Your task to perform on an android device: Go to notification settings Image 0: 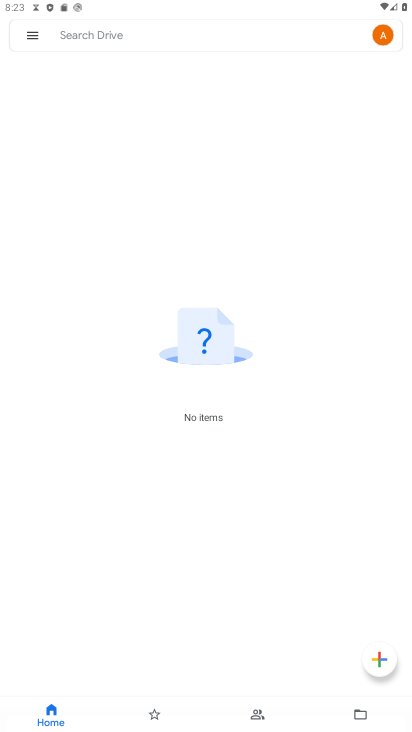
Step 0: press home button
Your task to perform on an android device: Go to notification settings Image 1: 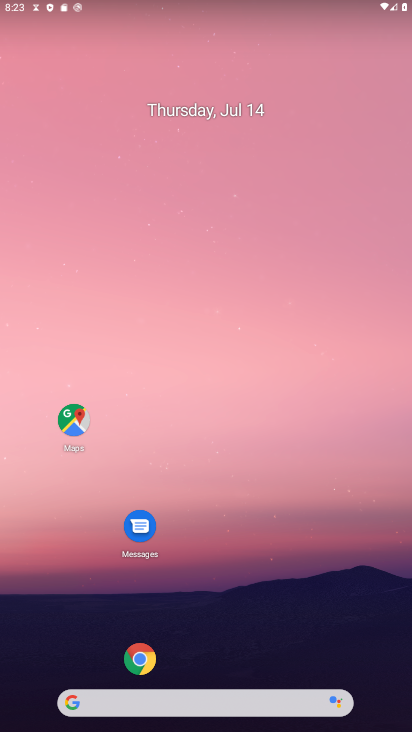
Step 1: drag from (240, 661) to (257, 367)
Your task to perform on an android device: Go to notification settings Image 2: 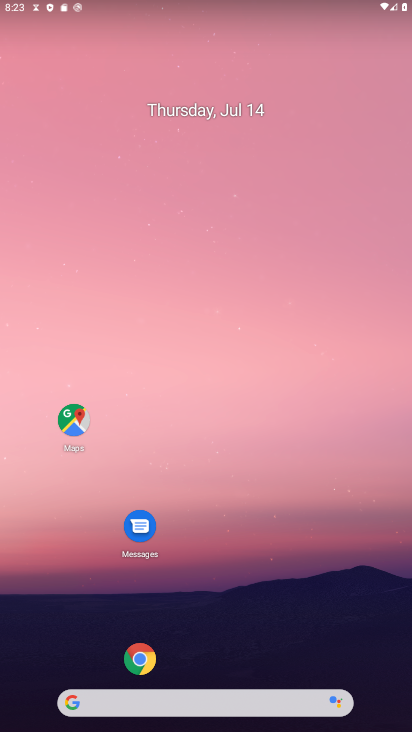
Step 2: drag from (154, 703) to (244, 272)
Your task to perform on an android device: Go to notification settings Image 3: 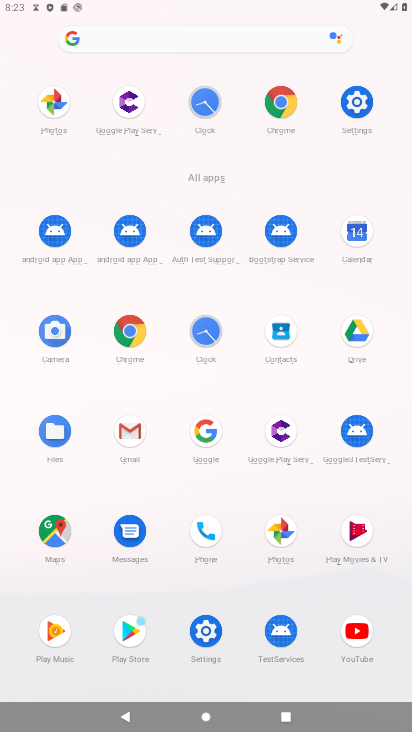
Step 3: click (352, 102)
Your task to perform on an android device: Go to notification settings Image 4: 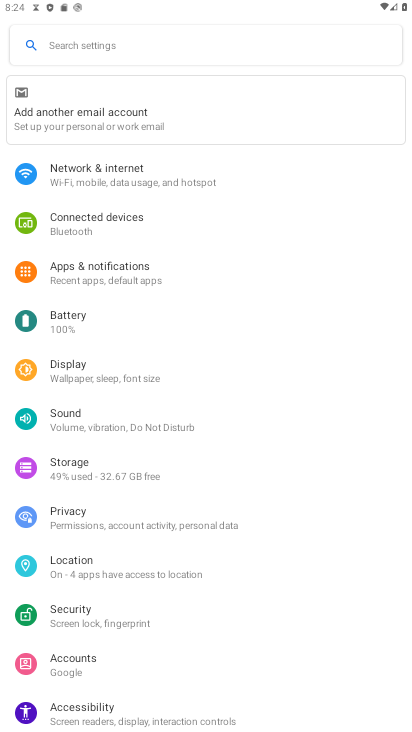
Step 4: click (71, 275)
Your task to perform on an android device: Go to notification settings Image 5: 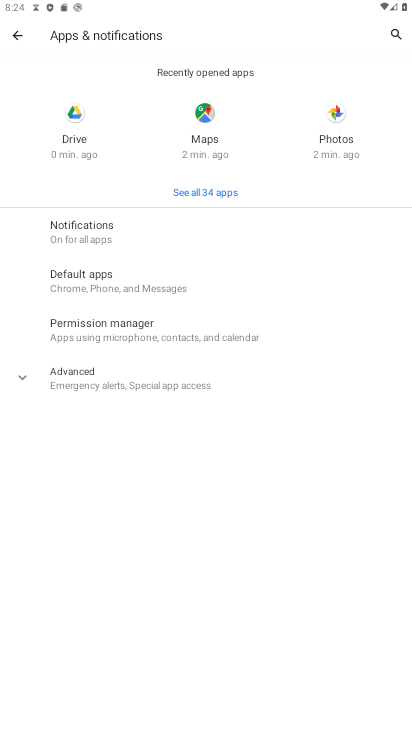
Step 5: click (61, 377)
Your task to perform on an android device: Go to notification settings Image 6: 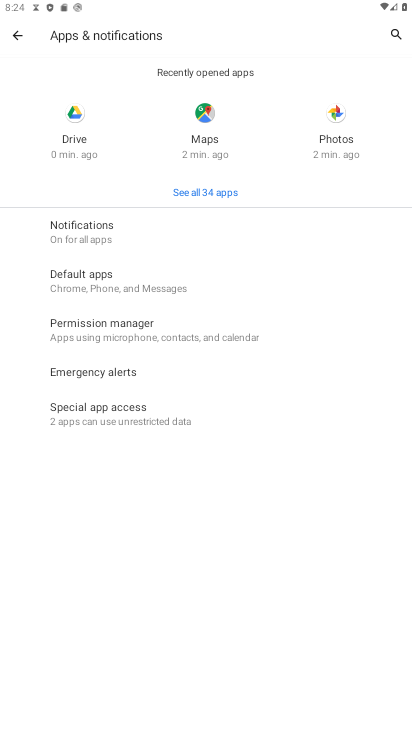
Step 6: task complete